Your task to perform on an android device: check google app version Image 0: 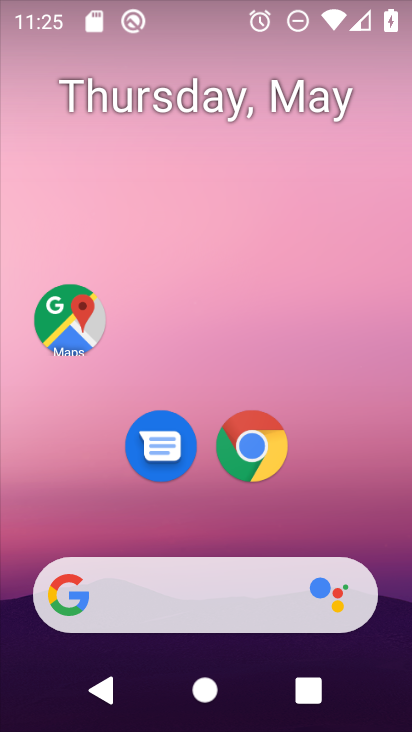
Step 0: drag from (204, 638) to (235, 225)
Your task to perform on an android device: check google app version Image 1: 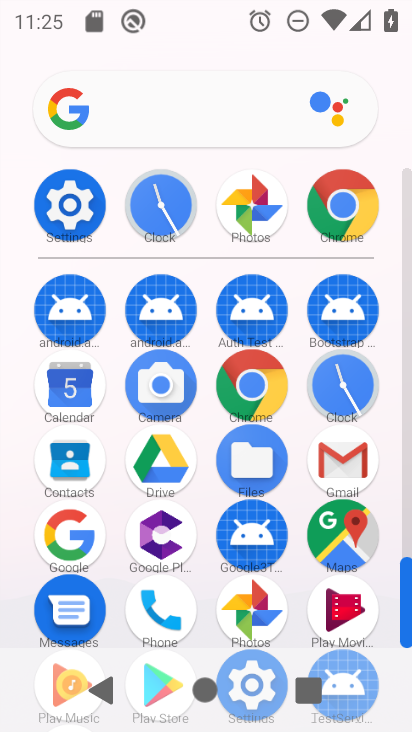
Step 1: click (353, 226)
Your task to perform on an android device: check google app version Image 2: 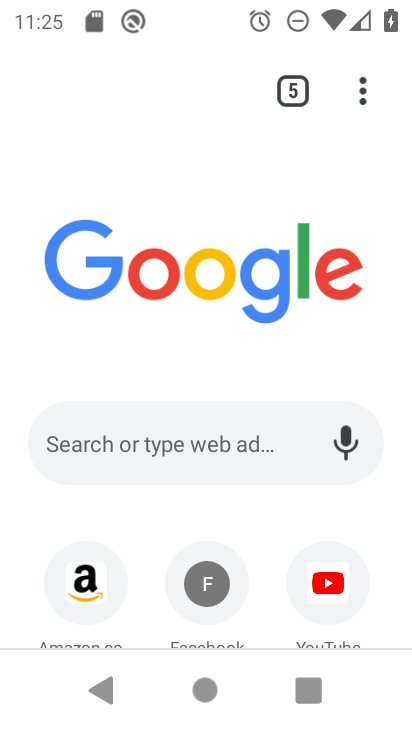
Step 2: click (345, 106)
Your task to perform on an android device: check google app version Image 3: 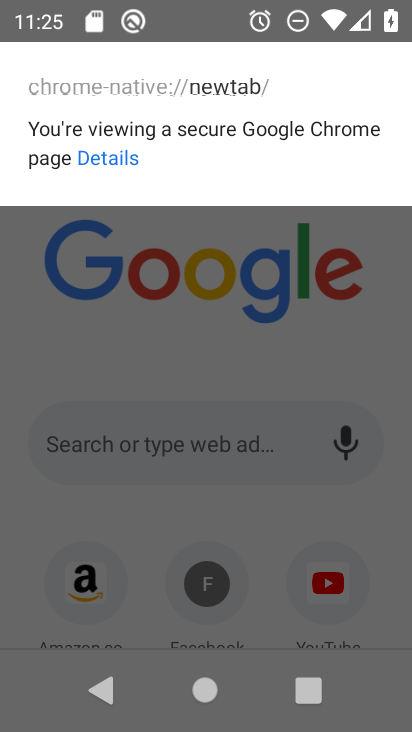
Step 3: click (283, 232)
Your task to perform on an android device: check google app version Image 4: 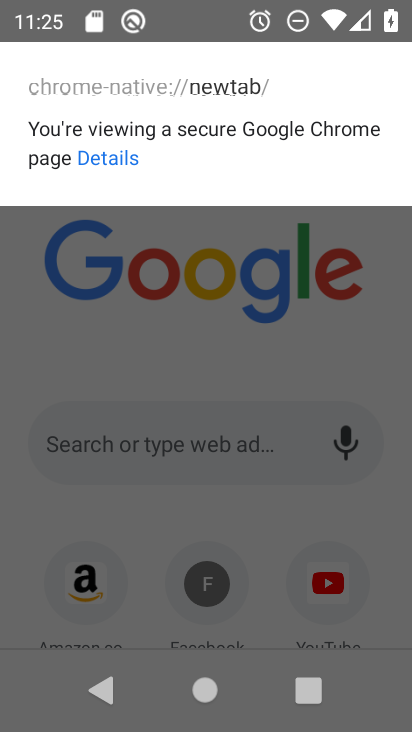
Step 4: click (238, 281)
Your task to perform on an android device: check google app version Image 5: 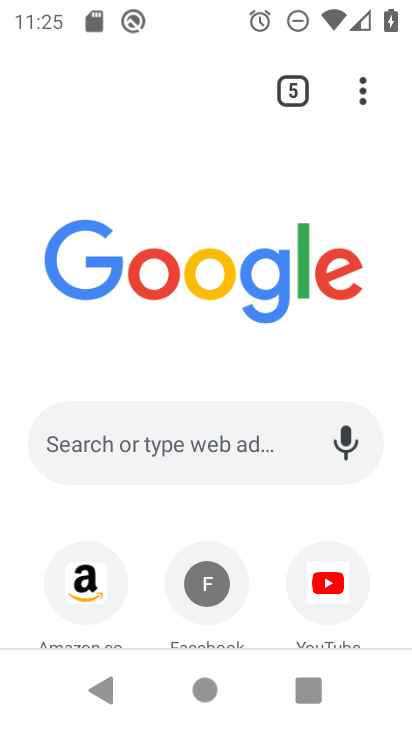
Step 5: click (362, 112)
Your task to perform on an android device: check google app version Image 6: 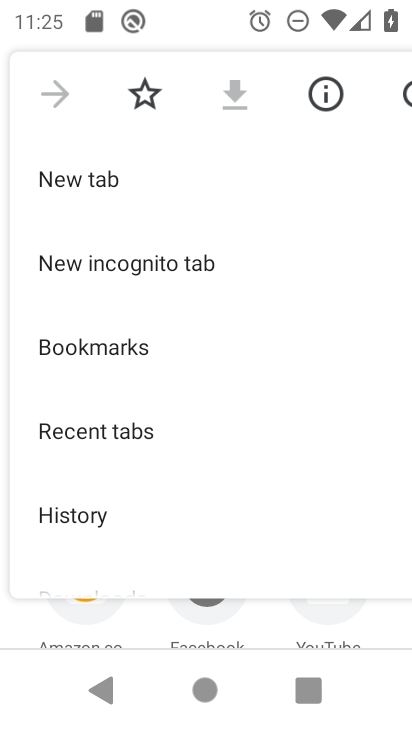
Step 6: drag from (180, 463) to (259, 156)
Your task to perform on an android device: check google app version Image 7: 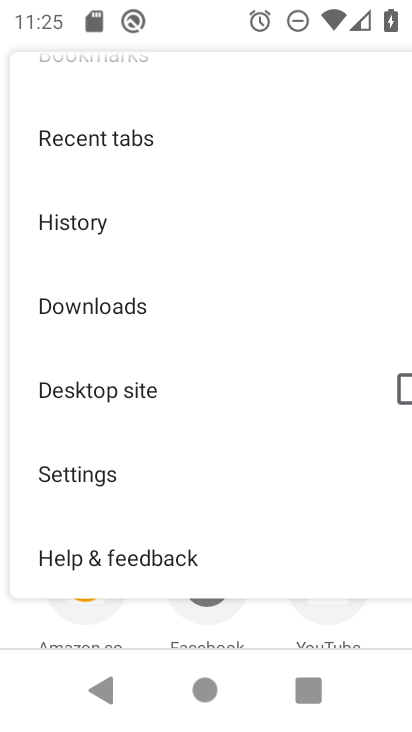
Step 7: click (156, 474)
Your task to perform on an android device: check google app version Image 8: 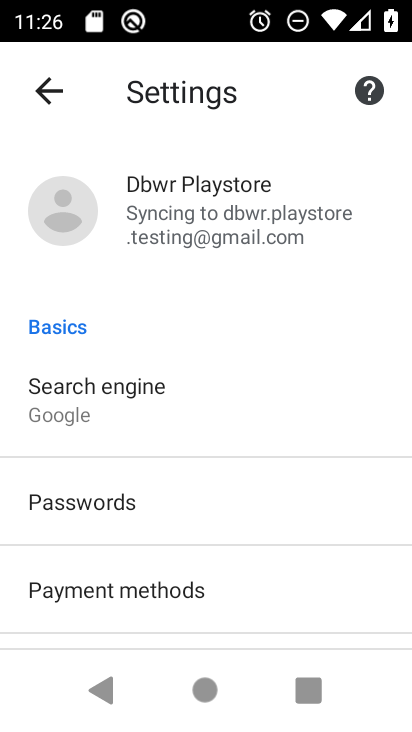
Step 8: drag from (186, 521) to (217, 440)
Your task to perform on an android device: check google app version Image 9: 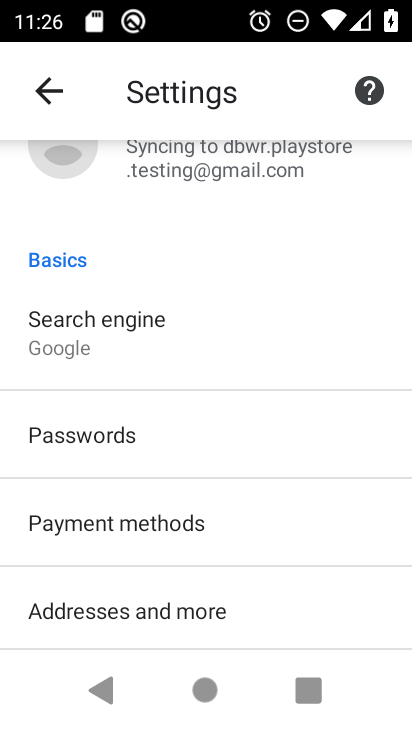
Step 9: drag from (242, 523) to (294, 275)
Your task to perform on an android device: check google app version Image 10: 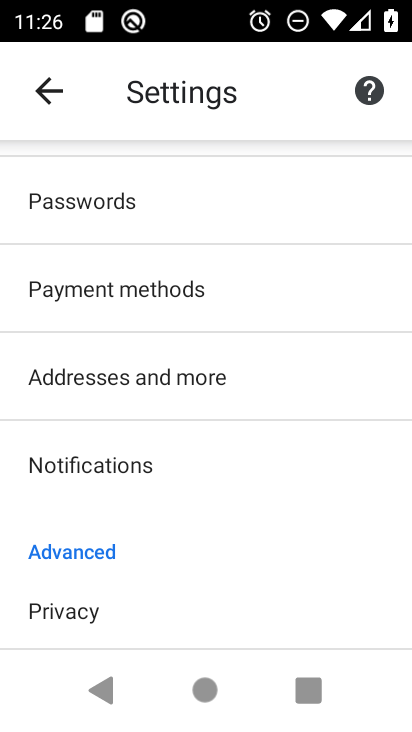
Step 10: drag from (214, 520) to (244, 233)
Your task to perform on an android device: check google app version Image 11: 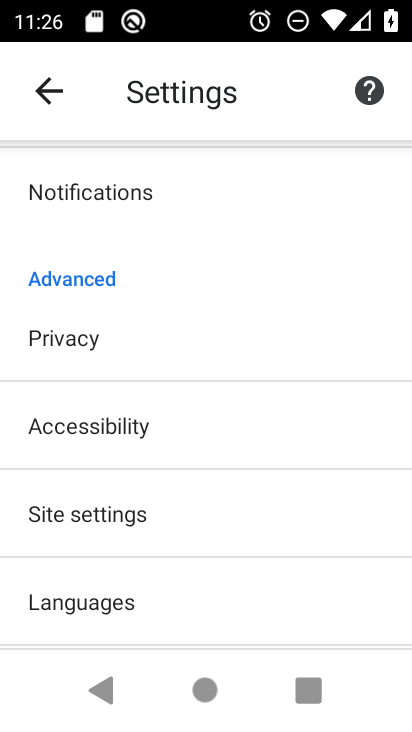
Step 11: drag from (158, 600) to (217, 303)
Your task to perform on an android device: check google app version Image 12: 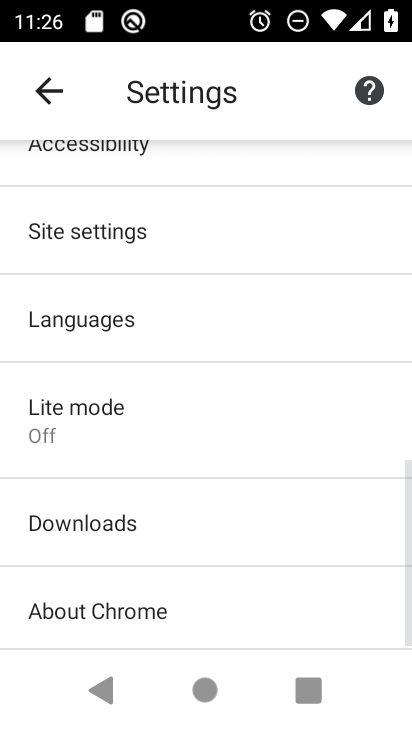
Step 12: drag from (162, 585) to (192, 462)
Your task to perform on an android device: check google app version Image 13: 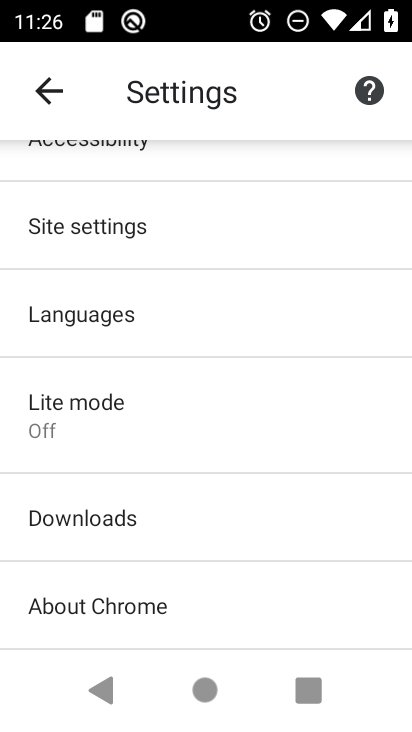
Step 13: click (129, 612)
Your task to perform on an android device: check google app version Image 14: 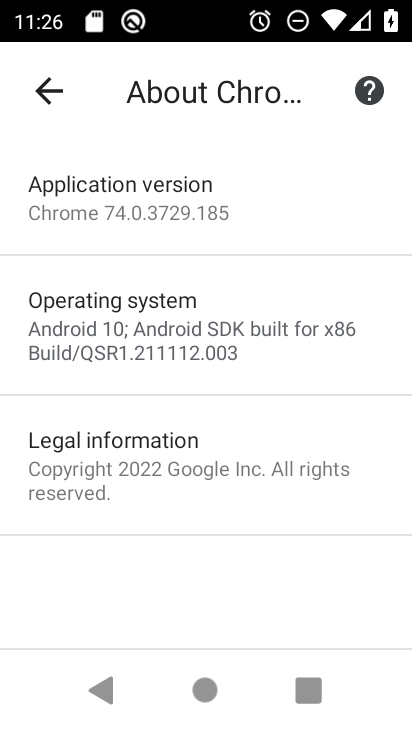
Step 14: click (149, 230)
Your task to perform on an android device: check google app version Image 15: 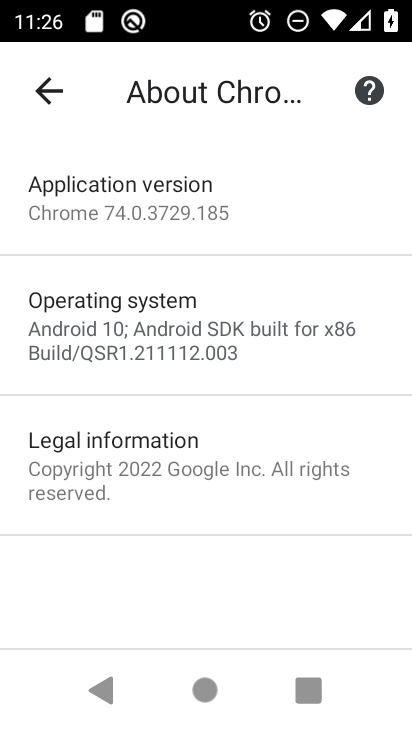
Step 15: task complete